Your task to perform on an android device: toggle show notifications on the lock screen Image 0: 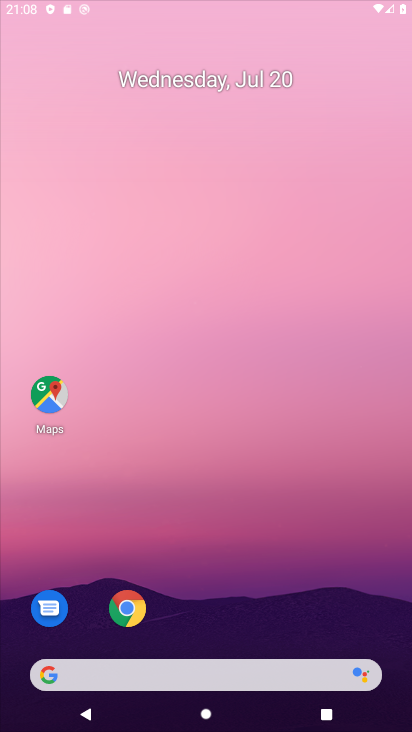
Step 0: drag from (264, 659) to (284, 149)
Your task to perform on an android device: toggle show notifications on the lock screen Image 1: 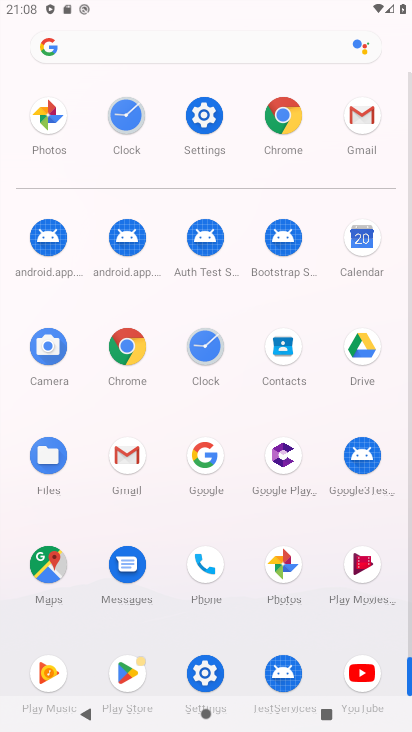
Step 1: click (190, 114)
Your task to perform on an android device: toggle show notifications on the lock screen Image 2: 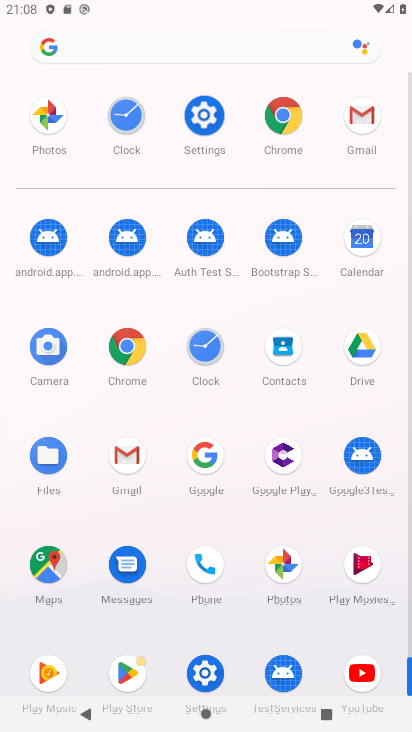
Step 2: click (204, 115)
Your task to perform on an android device: toggle show notifications on the lock screen Image 3: 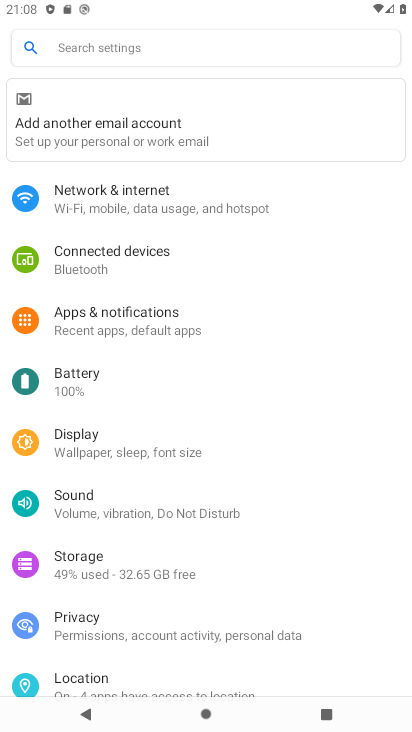
Step 3: click (202, 125)
Your task to perform on an android device: toggle show notifications on the lock screen Image 4: 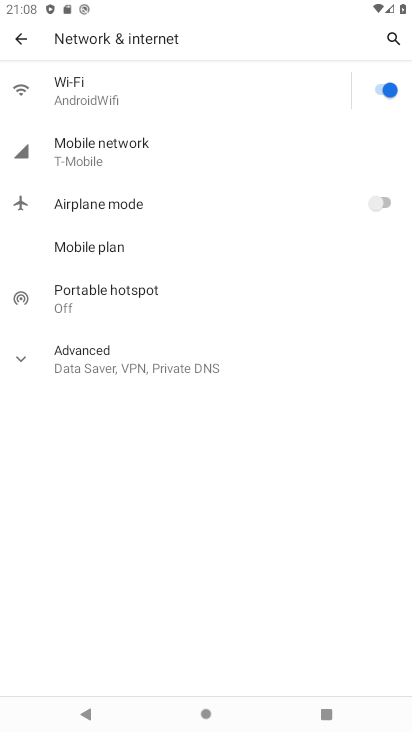
Step 4: click (18, 36)
Your task to perform on an android device: toggle show notifications on the lock screen Image 5: 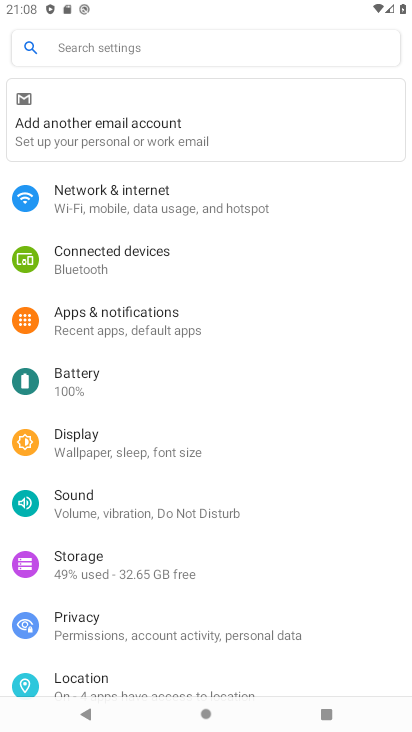
Step 5: click (147, 315)
Your task to perform on an android device: toggle show notifications on the lock screen Image 6: 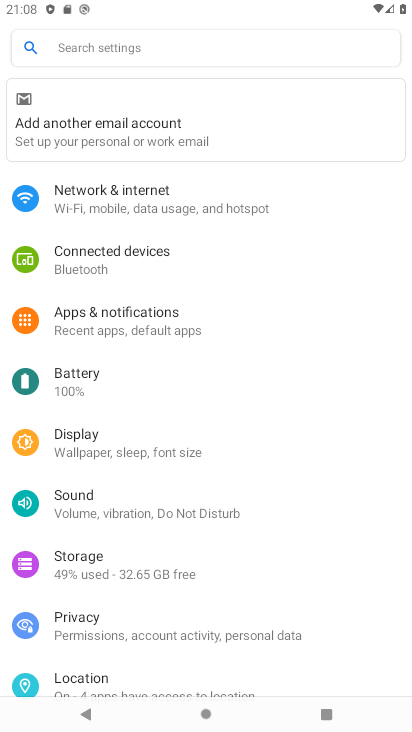
Step 6: click (147, 316)
Your task to perform on an android device: toggle show notifications on the lock screen Image 7: 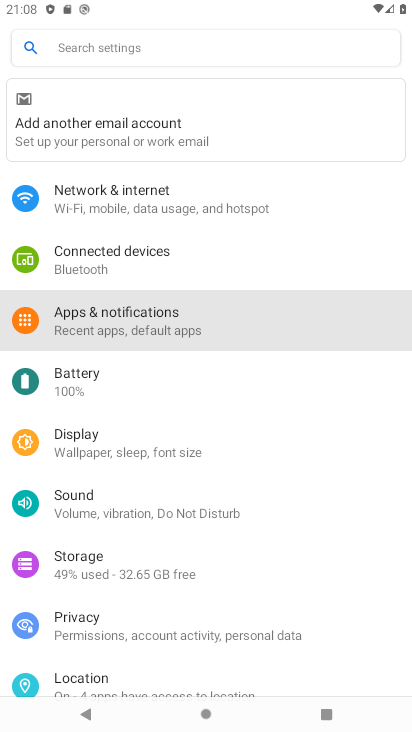
Step 7: click (154, 314)
Your task to perform on an android device: toggle show notifications on the lock screen Image 8: 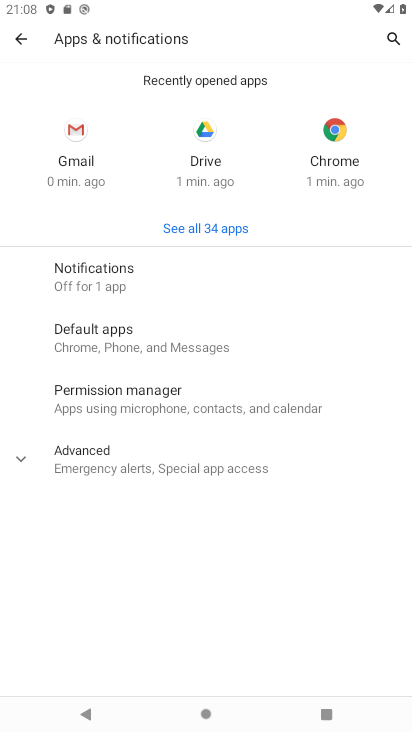
Step 8: click (87, 271)
Your task to perform on an android device: toggle show notifications on the lock screen Image 9: 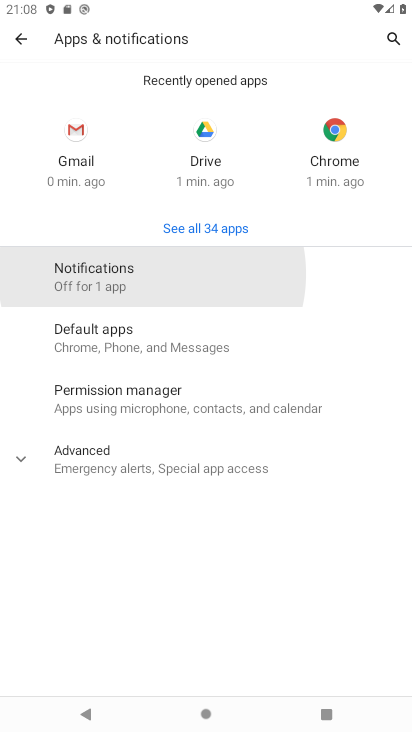
Step 9: click (90, 273)
Your task to perform on an android device: toggle show notifications on the lock screen Image 10: 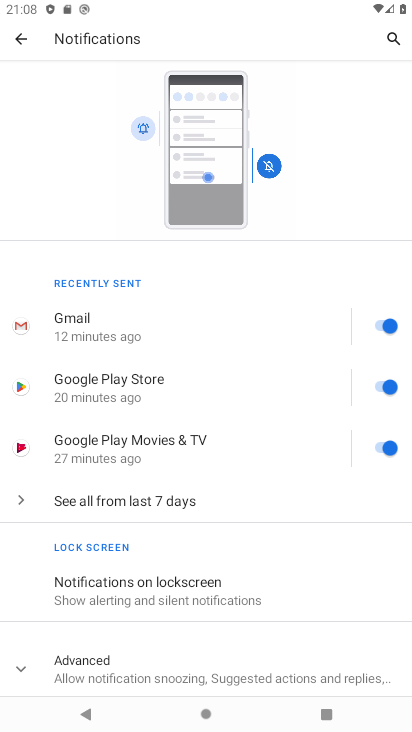
Step 10: drag from (175, 608) to (211, 305)
Your task to perform on an android device: toggle show notifications on the lock screen Image 11: 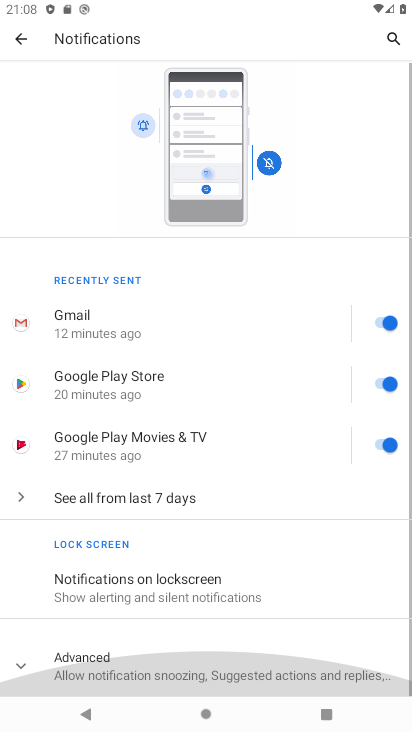
Step 11: drag from (221, 372) to (231, 285)
Your task to perform on an android device: toggle show notifications on the lock screen Image 12: 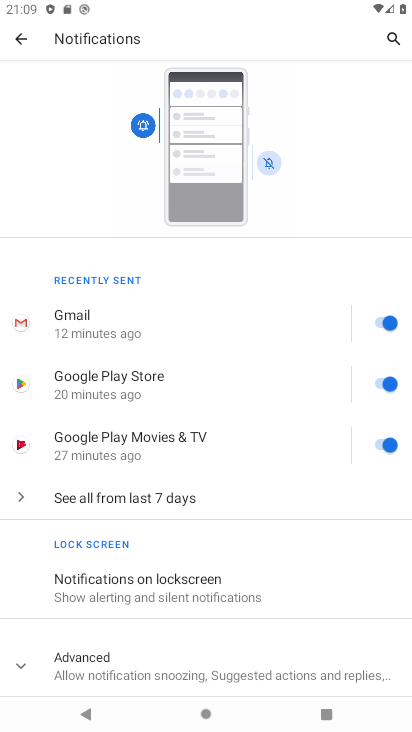
Step 12: click (145, 590)
Your task to perform on an android device: toggle show notifications on the lock screen Image 13: 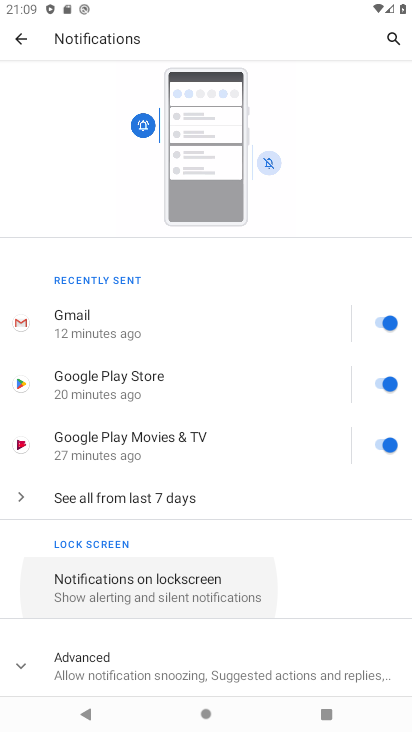
Step 13: click (152, 589)
Your task to perform on an android device: toggle show notifications on the lock screen Image 14: 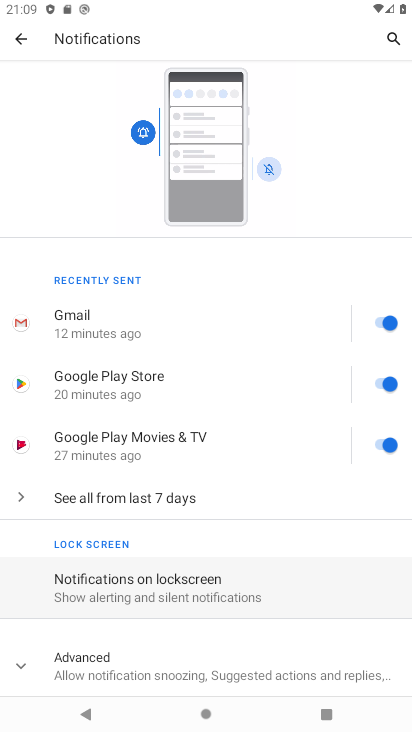
Step 14: click (154, 590)
Your task to perform on an android device: toggle show notifications on the lock screen Image 15: 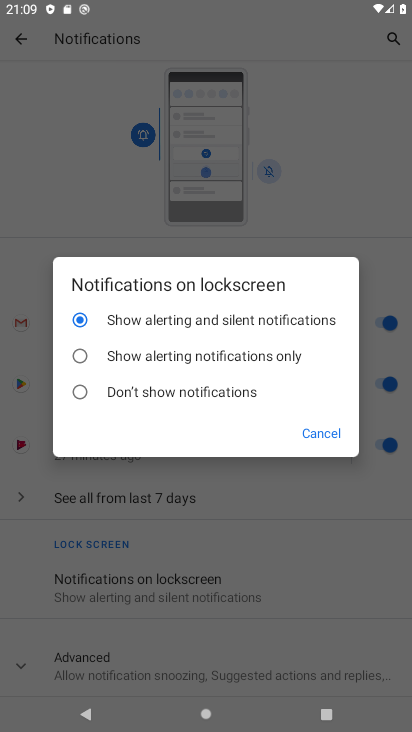
Step 15: click (78, 351)
Your task to perform on an android device: toggle show notifications on the lock screen Image 16: 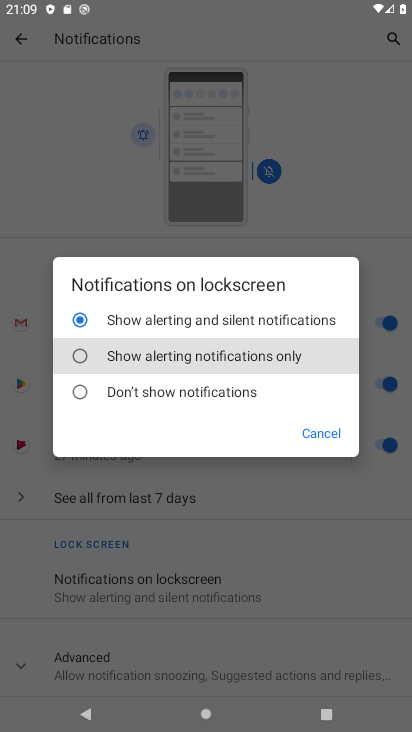
Step 16: click (78, 351)
Your task to perform on an android device: toggle show notifications on the lock screen Image 17: 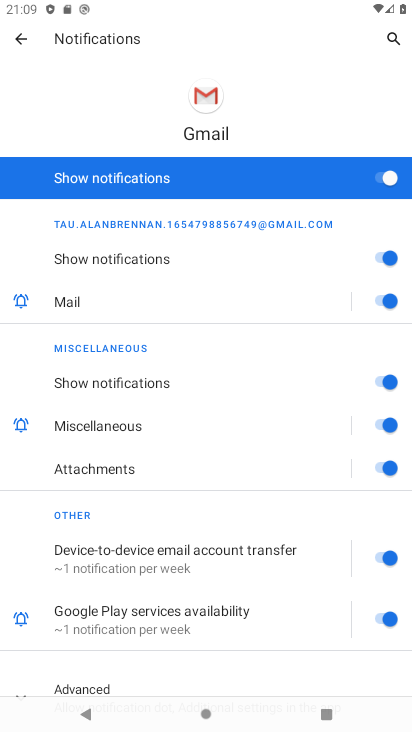
Step 17: task complete